Your task to perform on an android device: open wifi settings Image 0: 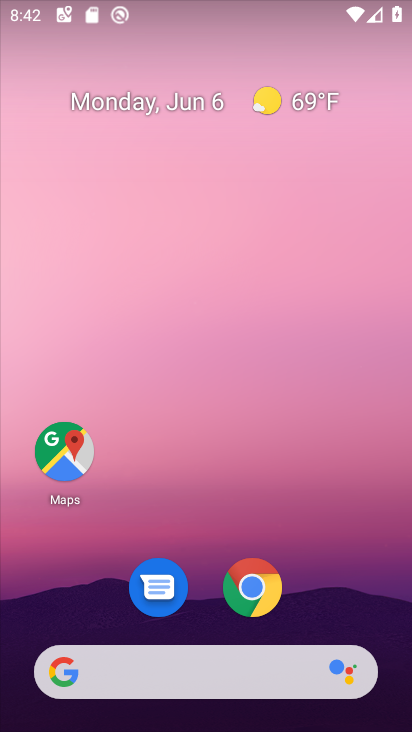
Step 0: drag from (342, 591) to (316, 90)
Your task to perform on an android device: open wifi settings Image 1: 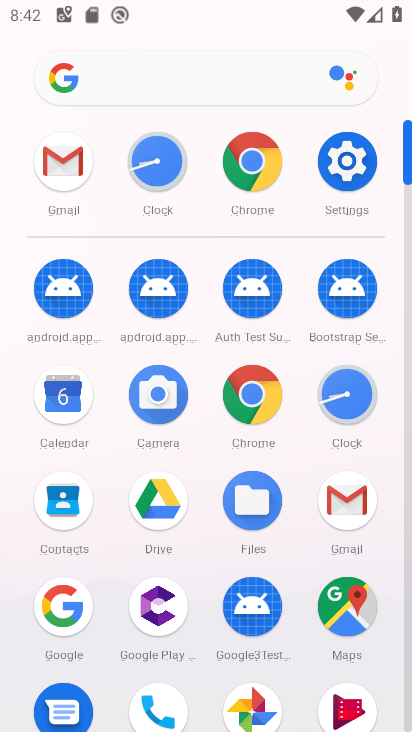
Step 1: click (339, 157)
Your task to perform on an android device: open wifi settings Image 2: 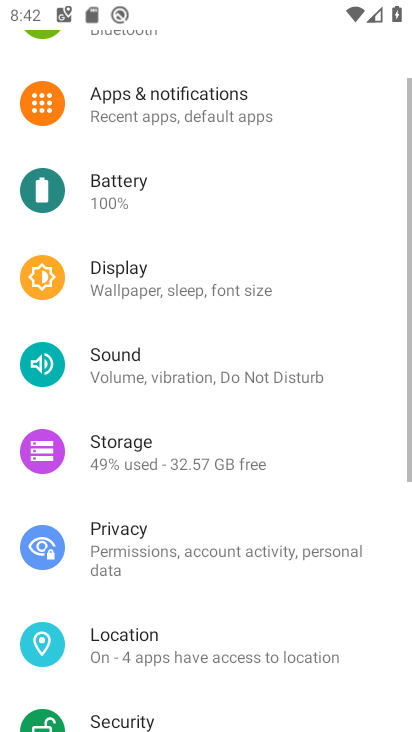
Step 2: drag from (292, 89) to (287, 596)
Your task to perform on an android device: open wifi settings Image 3: 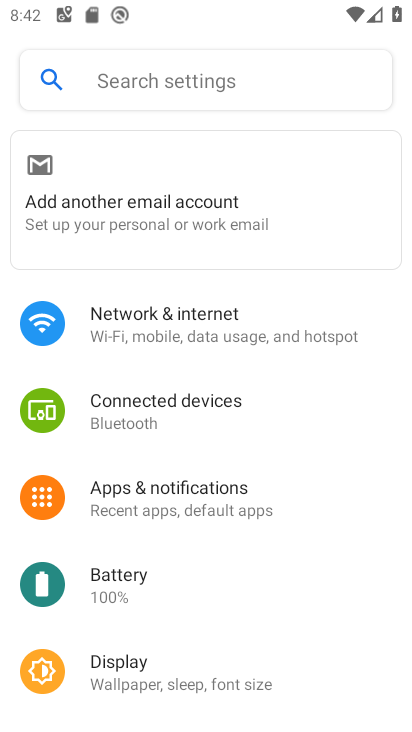
Step 3: click (176, 344)
Your task to perform on an android device: open wifi settings Image 4: 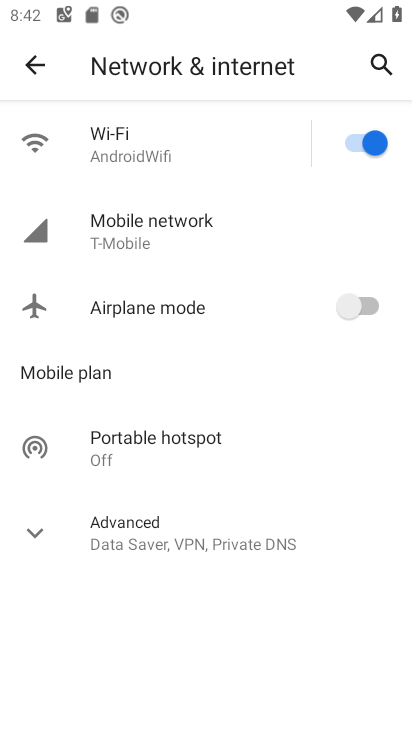
Step 4: click (206, 148)
Your task to perform on an android device: open wifi settings Image 5: 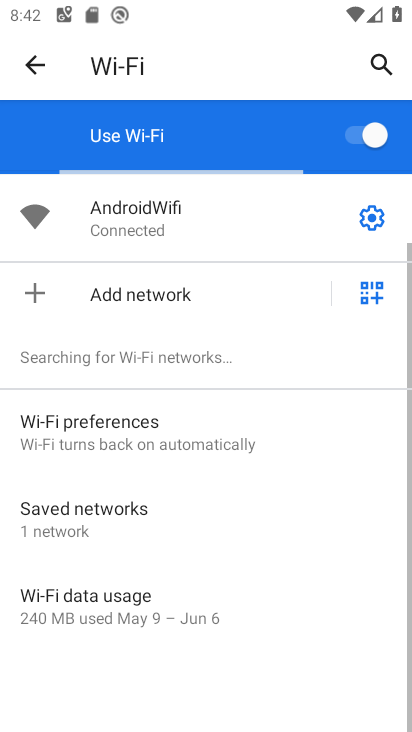
Step 5: click (365, 221)
Your task to perform on an android device: open wifi settings Image 6: 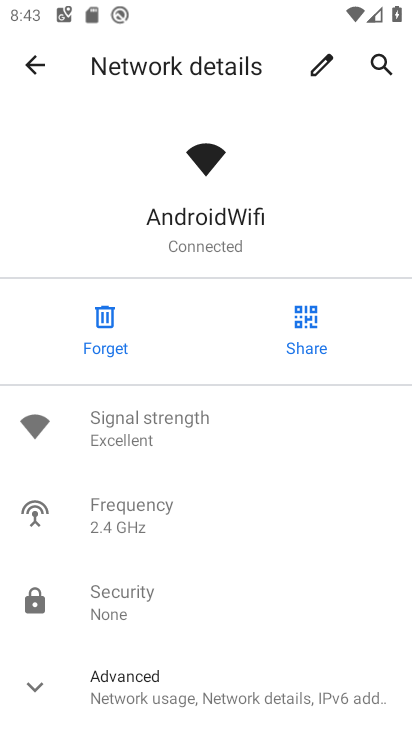
Step 6: task complete